Your task to perform on an android device: install app "Flipkart Online Shopping App" Image 0: 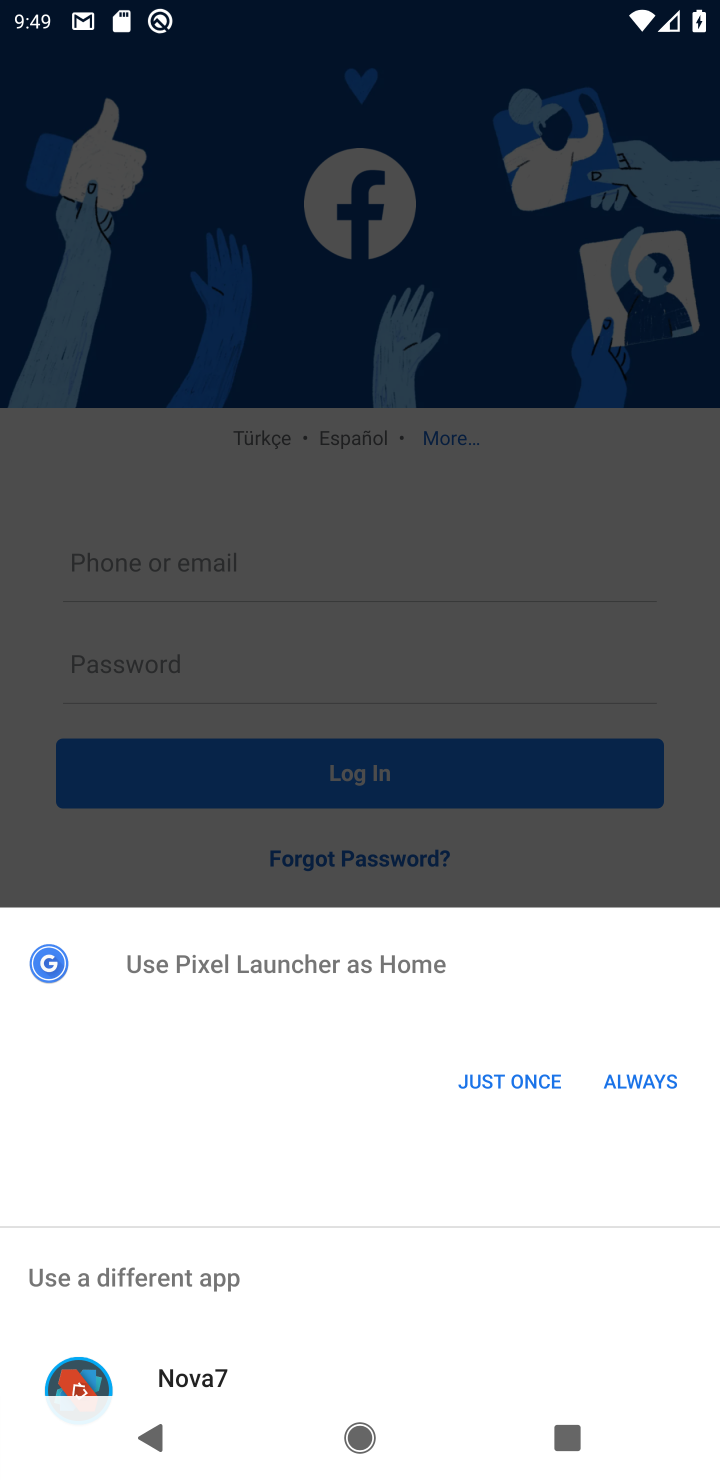
Step 0: press back button
Your task to perform on an android device: install app "Flipkart Online Shopping App" Image 1: 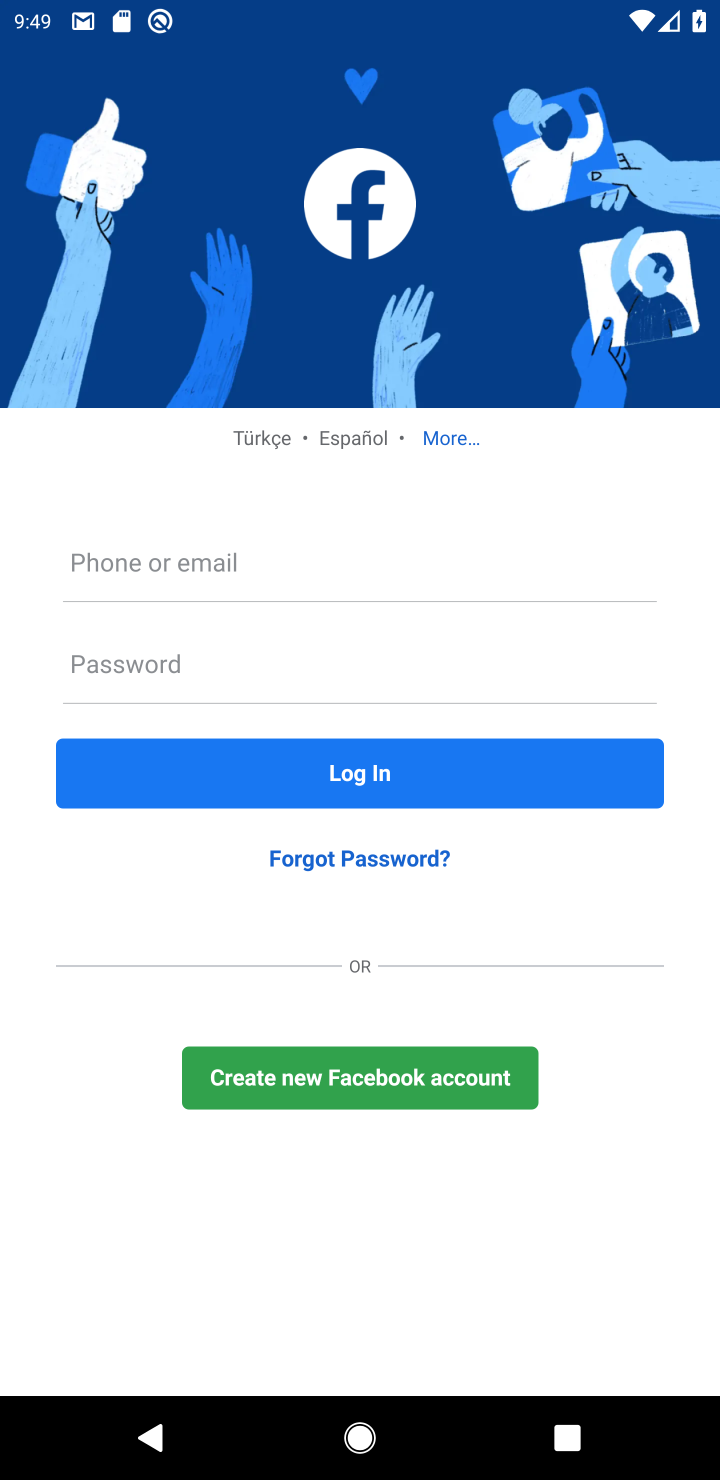
Step 1: press back button
Your task to perform on an android device: install app "Flipkart Online Shopping App" Image 2: 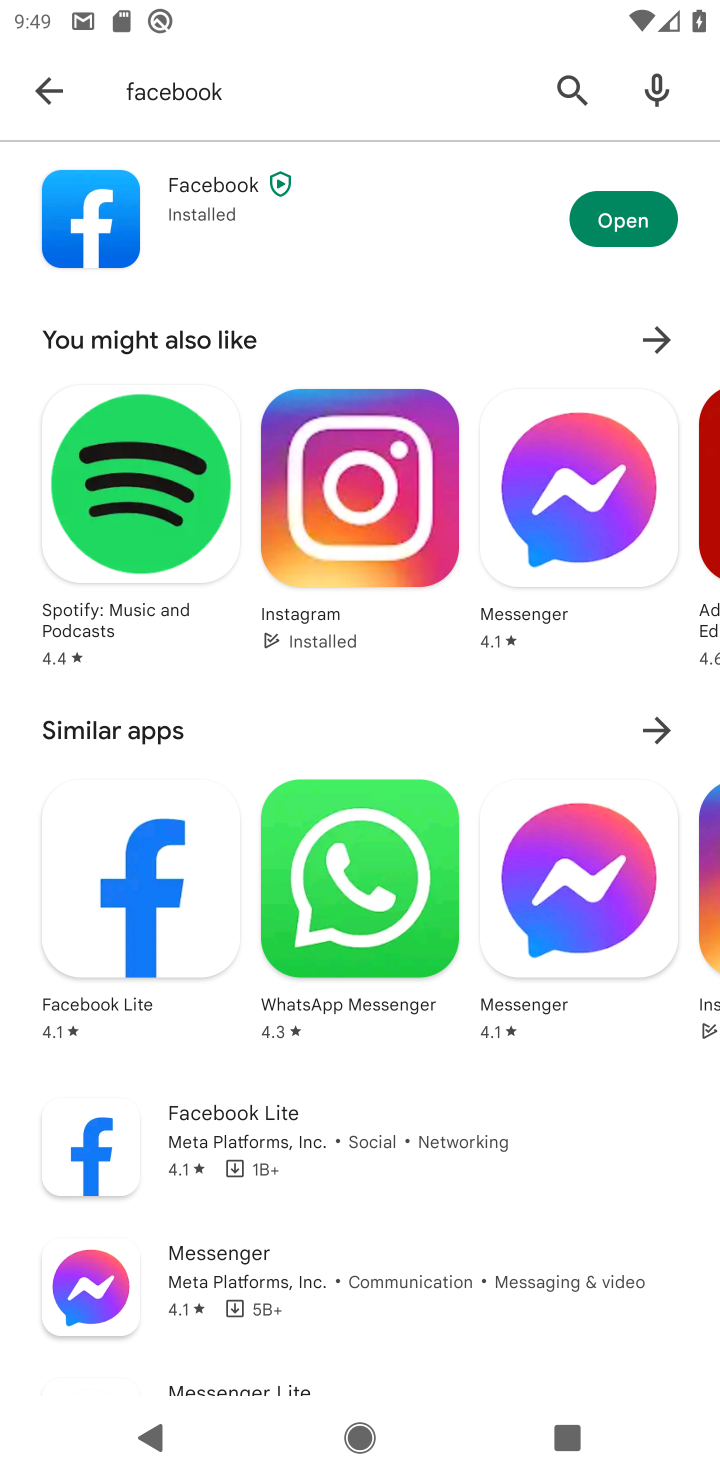
Step 2: click (579, 88)
Your task to perform on an android device: install app "Flipkart Online Shopping App" Image 3: 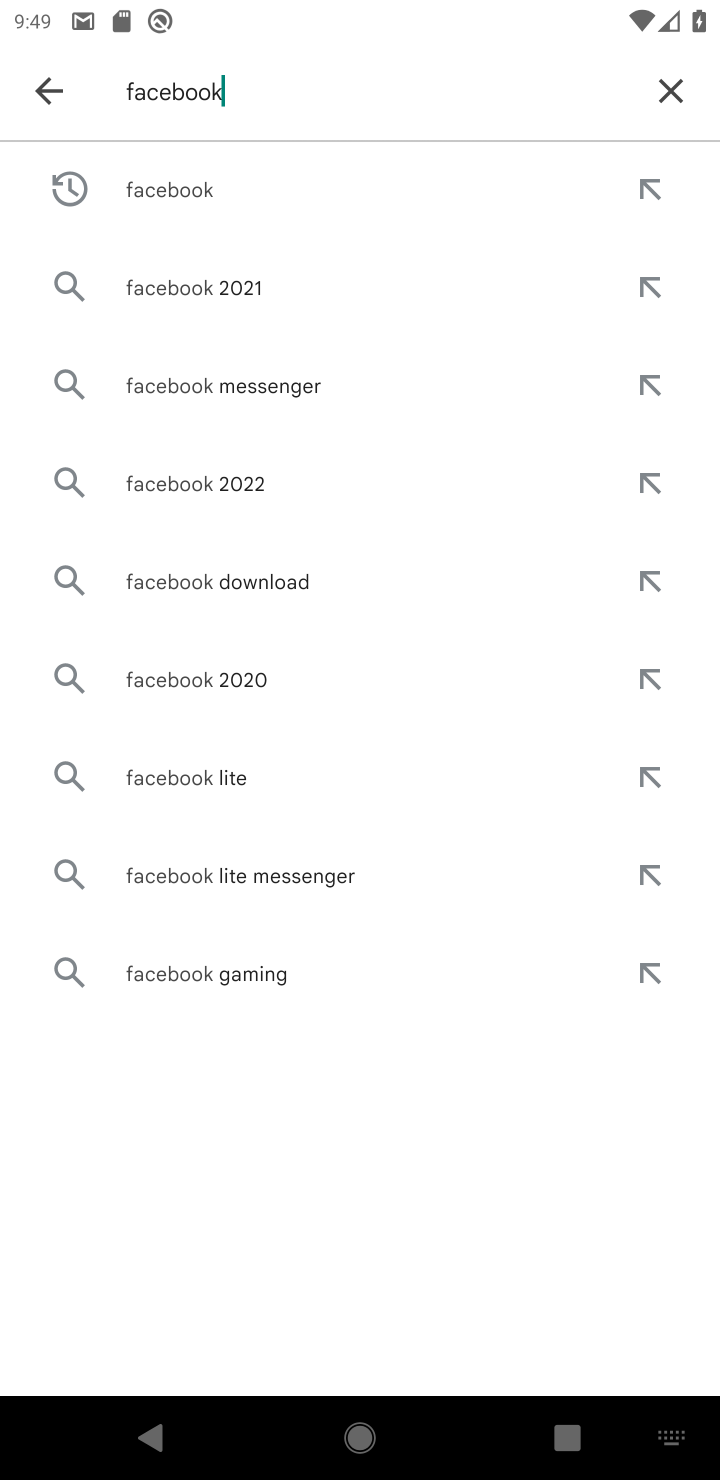
Step 3: click (680, 98)
Your task to perform on an android device: install app "Flipkart Online Shopping App" Image 4: 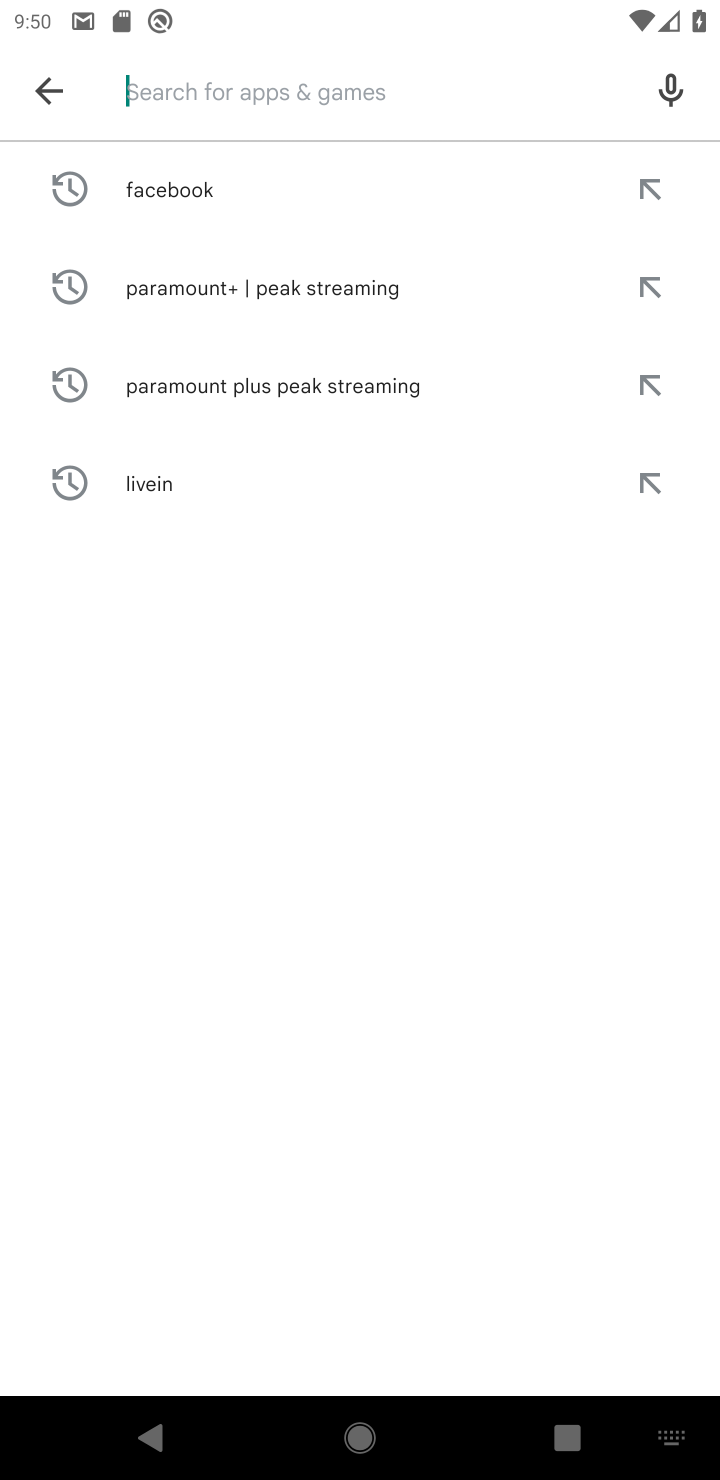
Step 4: type "filpkart online shopping app"
Your task to perform on an android device: install app "Flipkart Online Shopping App" Image 5: 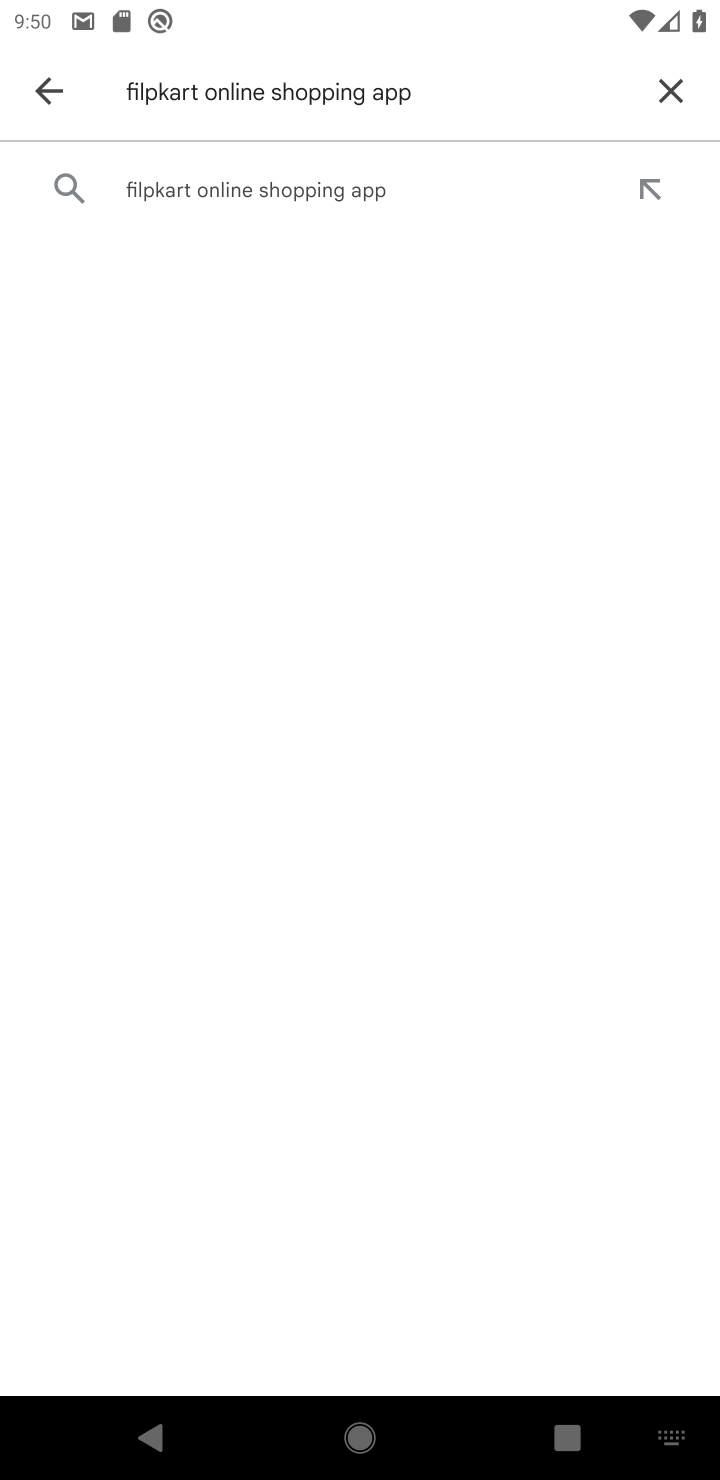
Step 5: click (322, 201)
Your task to perform on an android device: install app "Flipkart Online Shopping App" Image 6: 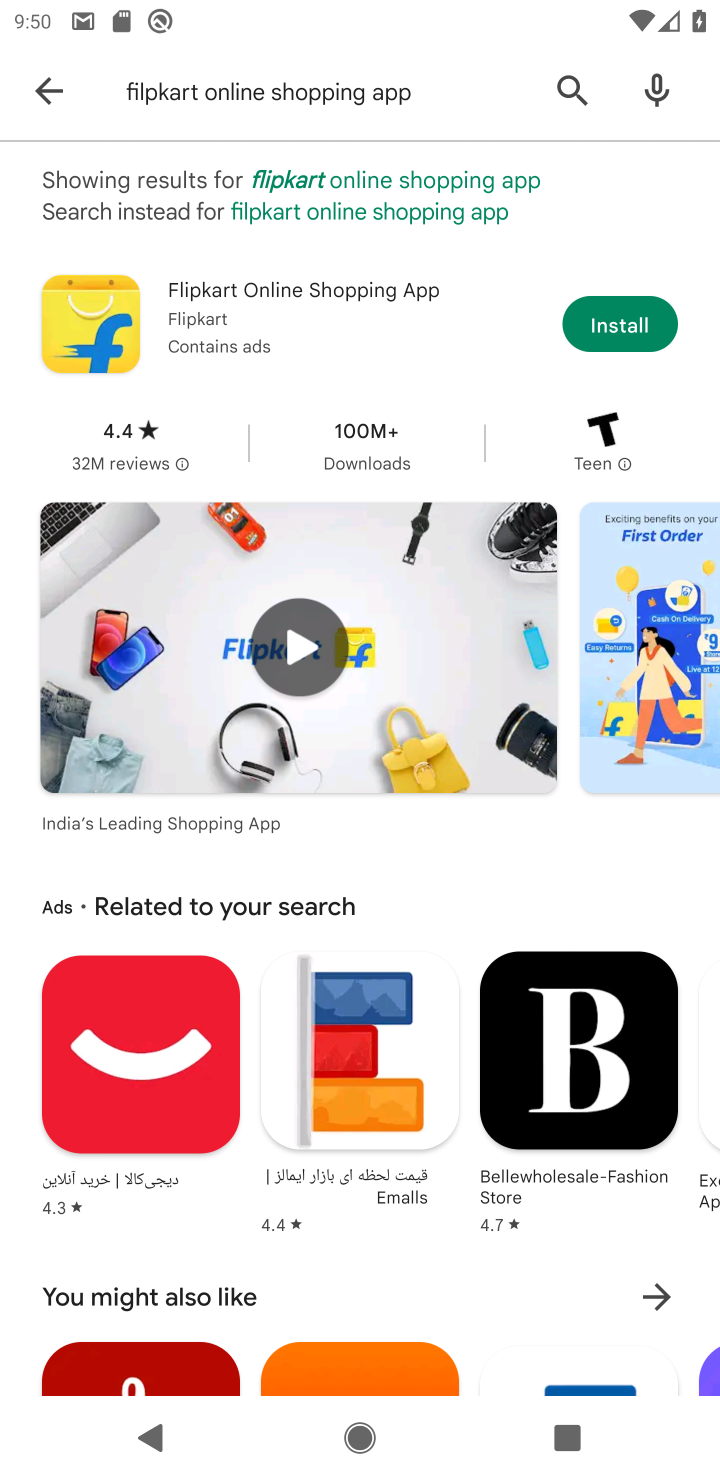
Step 6: click (618, 318)
Your task to perform on an android device: install app "Flipkart Online Shopping App" Image 7: 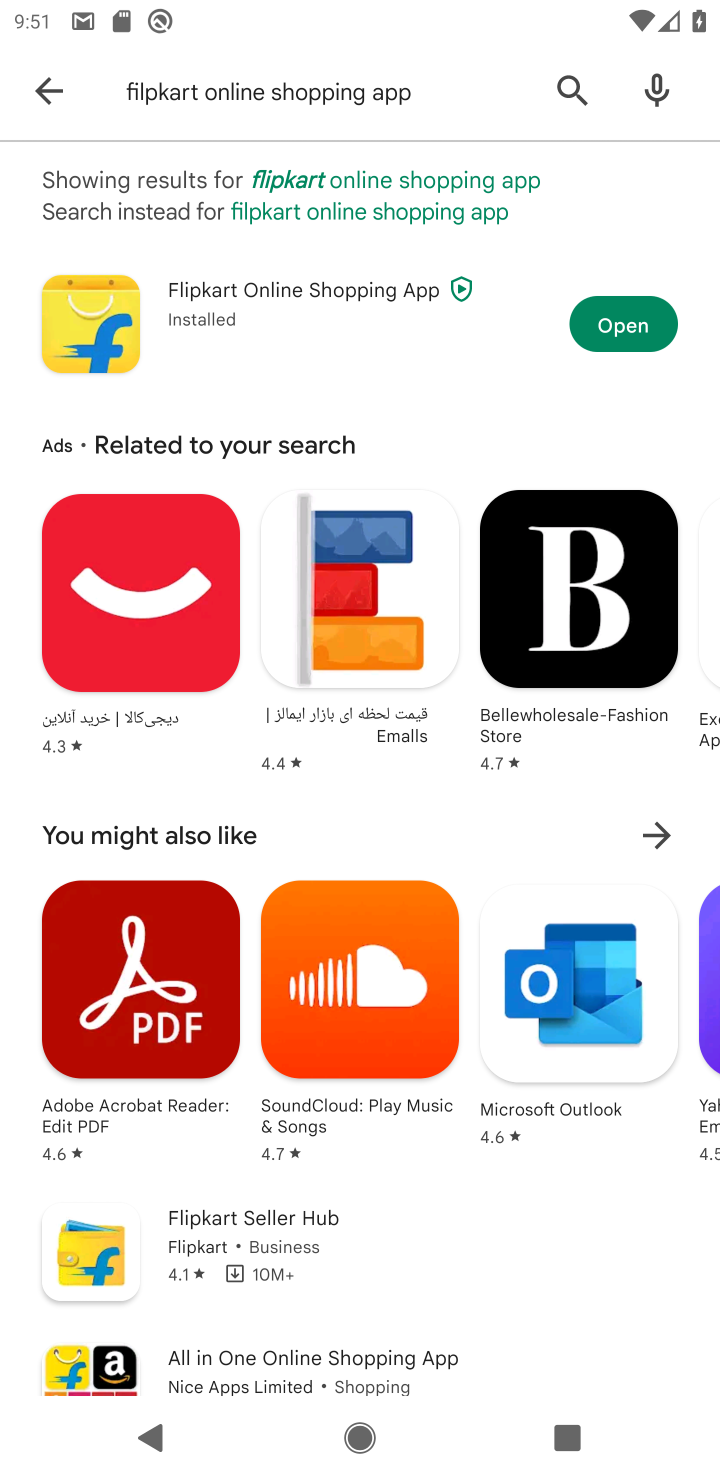
Step 7: task complete